Your task to perform on an android device: empty trash in the gmail app Image 0: 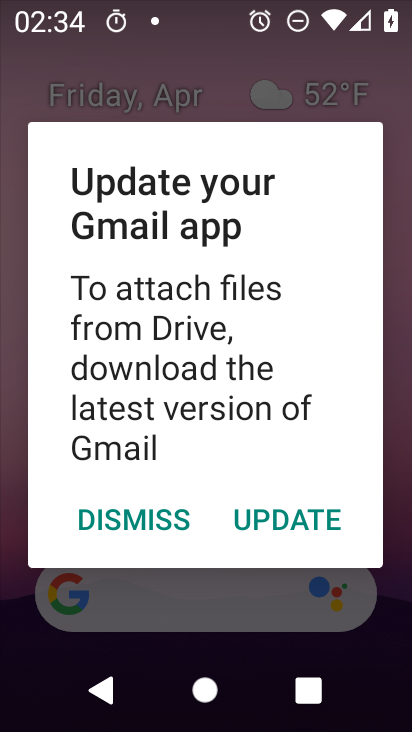
Step 0: press home button
Your task to perform on an android device: empty trash in the gmail app Image 1: 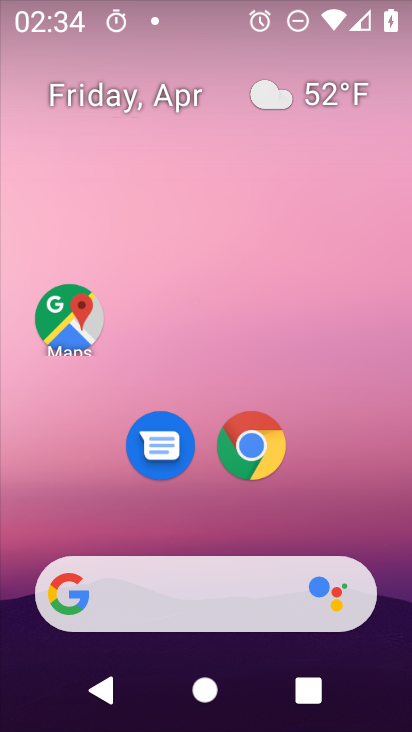
Step 1: drag from (339, 398) to (345, 116)
Your task to perform on an android device: empty trash in the gmail app Image 2: 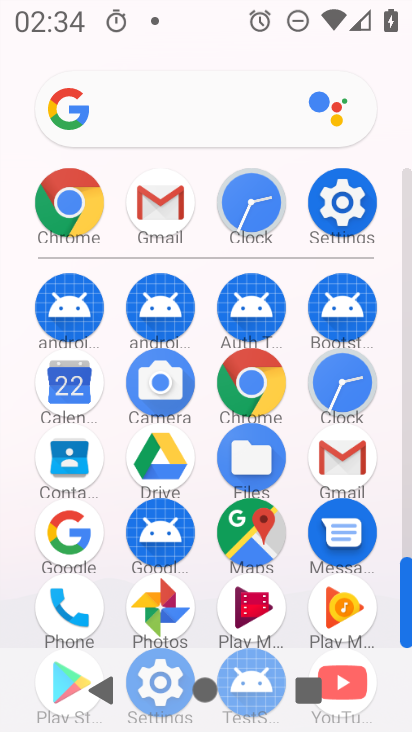
Step 2: click (361, 457)
Your task to perform on an android device: empty trash in the gmail app Image 3: 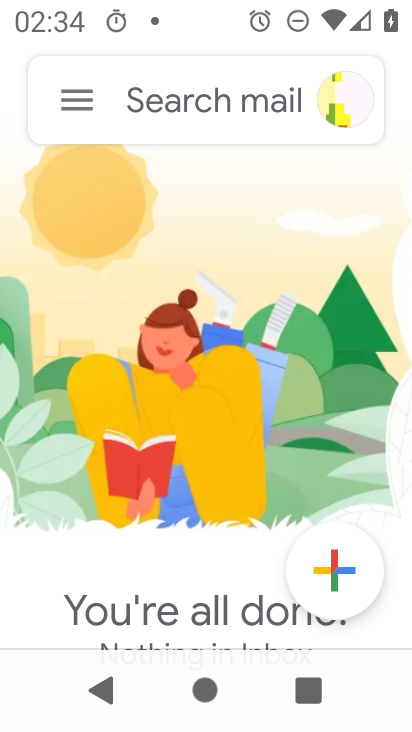
Step 3: click (70, 101)
Your task to perform on an android device: empty trash in the gmail app Image 4: 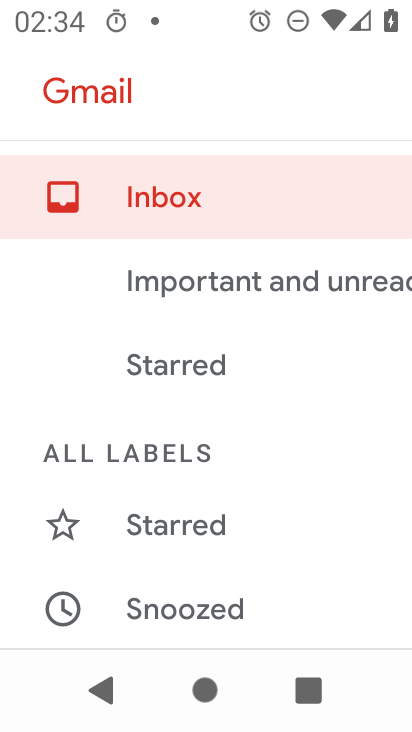
Step 4: drag from (293, 513) to (295, 349)
Your task to perform on an android device: empty trash in the gmail app Image 5: 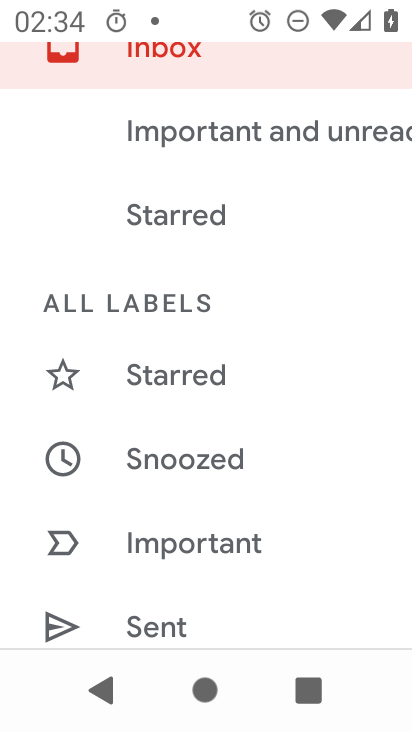
Step 5: drag from (316, 463) to (321, 318)
Your task to perform on an android device: empty trash in the gmail app Image 6: 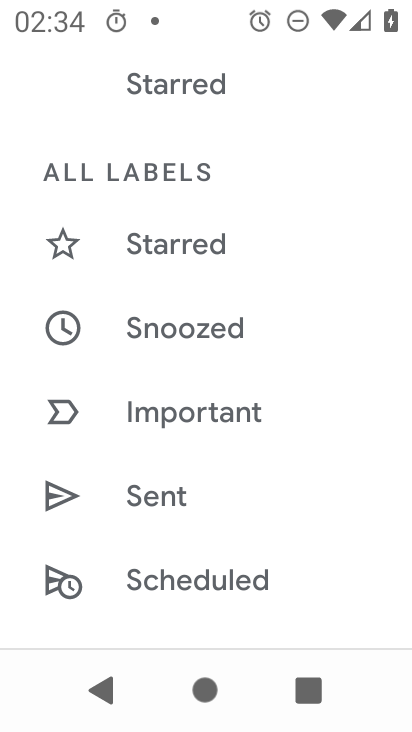
Step 6: drag from (335, 574) to (330, 337)
Your task to perform on an android device: empty trash in the gmail app Image 7: 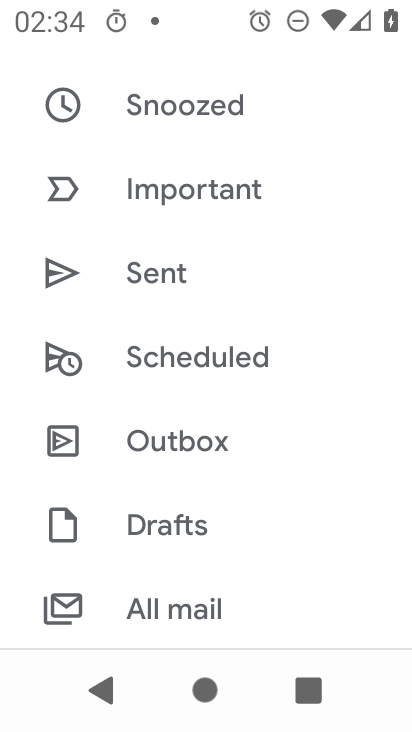
Step 7: drag from (334, 533) to (335, 290)
Your task to perform on an android device: empty trash in the gmail app Image 8: 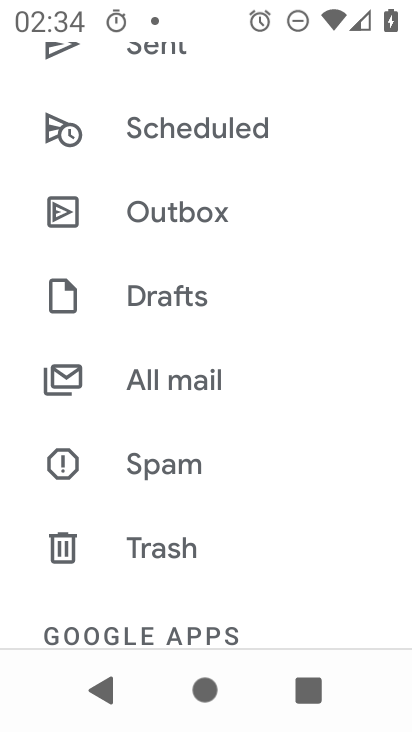
Step 8: drag from (329, 528) to (331, 368)
Your task to perform on an android device: empty trash in the gmail app Image 9: 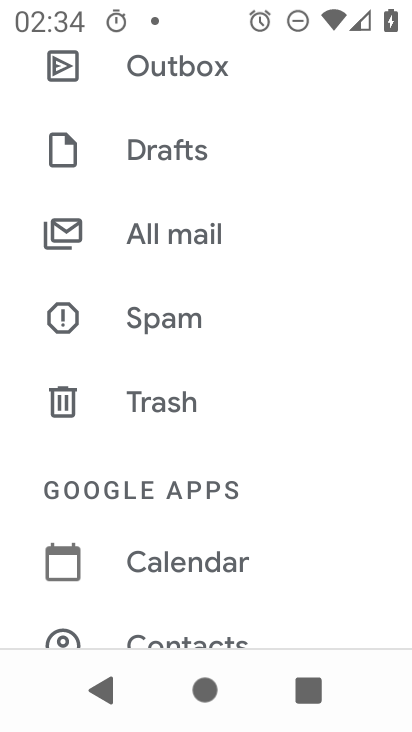
Step 9: click (171, 402)
Your task to perform on an android device: empty trash in the gmail app Image 10: 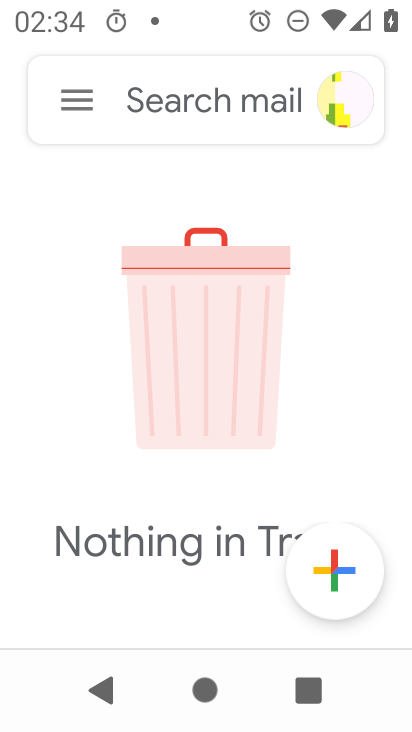
Step 10: task complete